Your task to perform on an android device: What's the weather? Image 0: 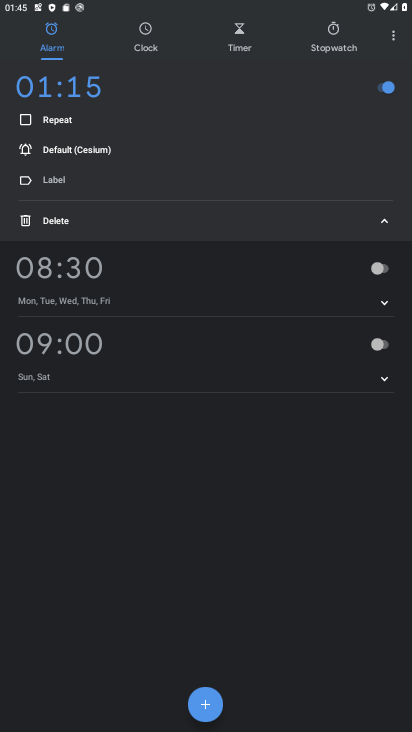
Step 0: press home button
Your task to perform on an android device: What's the weather? Image 1: 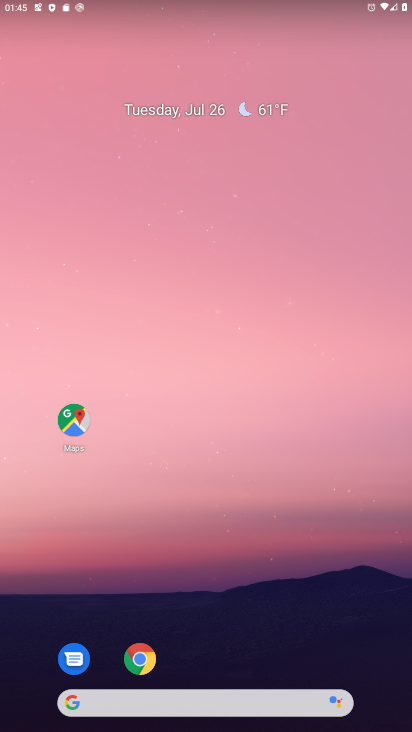
Step 1: drag from (204, 374) to (224, 66)
Your task to perform on an android device: What's the weather? Image 2: 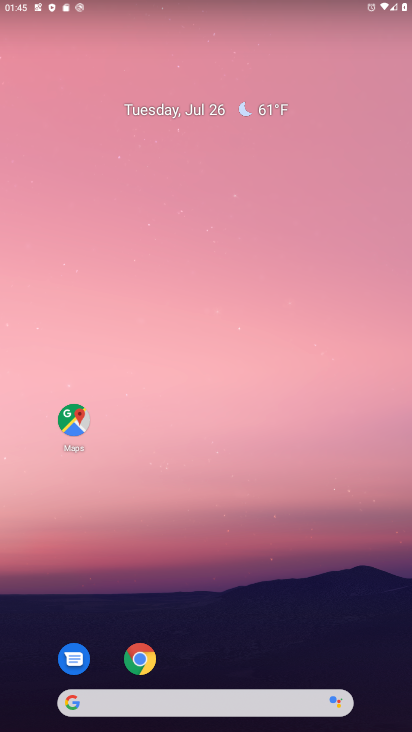
Step 2: drag from (259, 363) to (274, 7)
Your task to perform on an android device: What's the weather? Image 3: 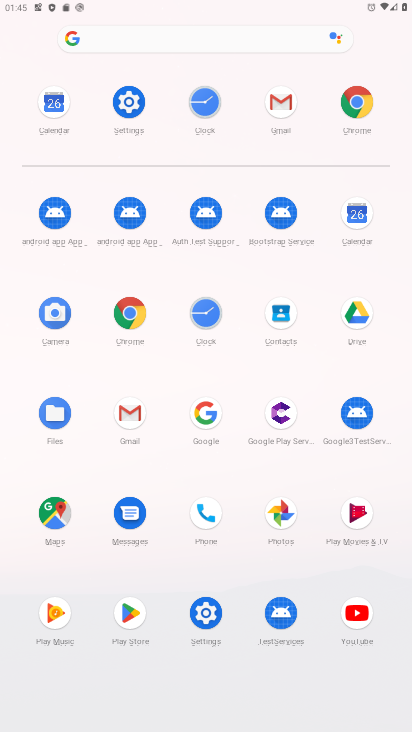
Step 3: press home button
Your task to perform on an android device: What's the weather? Image 4: 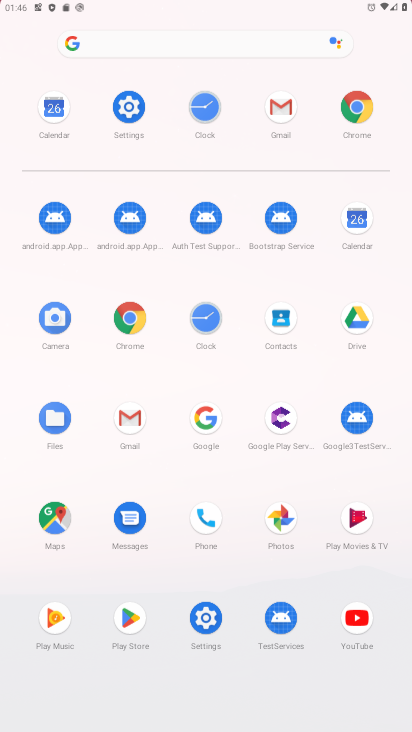
Step 4: press home button
Your task to perform on an android device: What's the weather? Image 5: 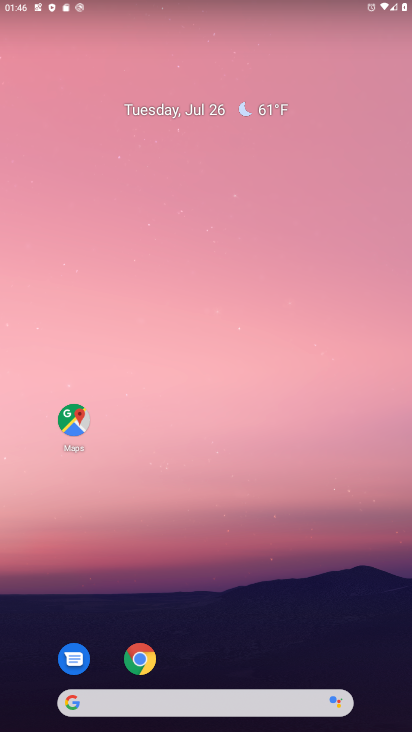
Step 5: click (278, 107)
Your task to perform on an android device: What's the weather? Image 6: 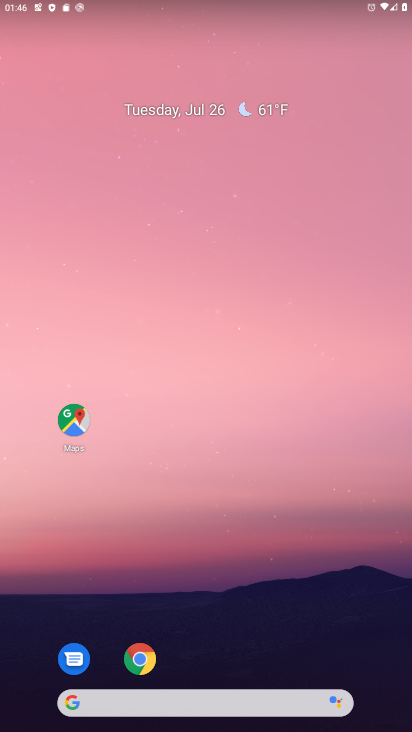
Step 6: click (272, 115)
Your task to perform on an android device: What's the weather? Image 7: 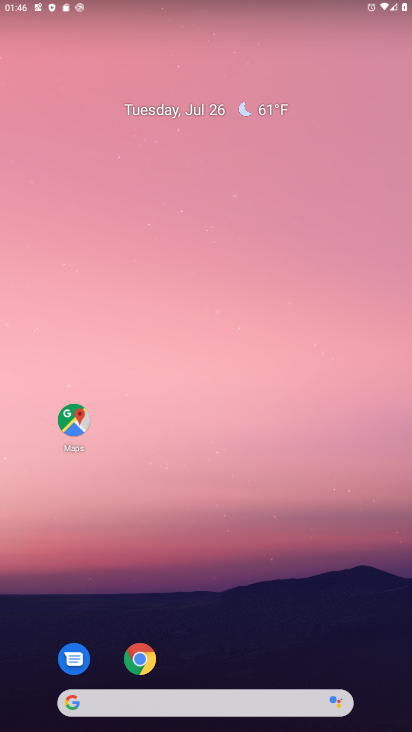
Step 7: drag from (238, 588) to (209, 4)
Your task to perform on an android device: What's the weather? Image 8: 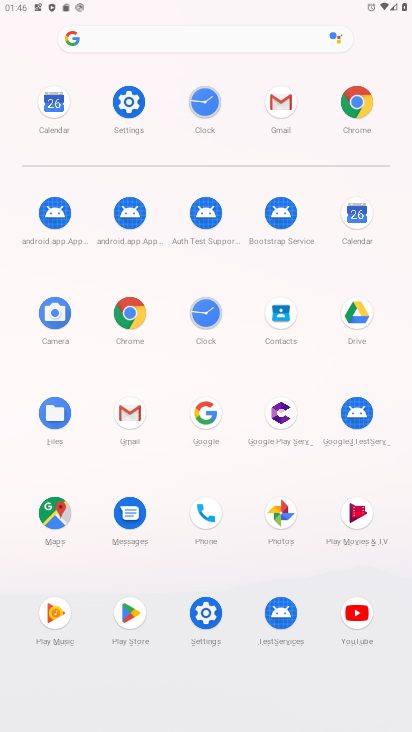
Step 8: click (358, 105)
Your task to perform on an android device: What's the weather? Image 9: 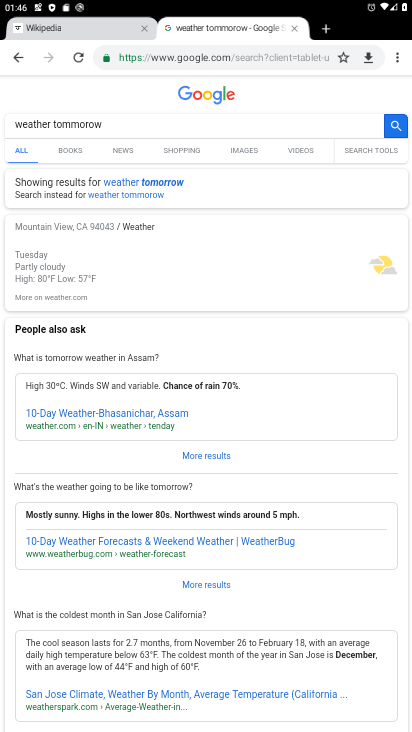
Step 9: click (250, 56)
Your task to perform on an android device: What's the weather? Image 10: 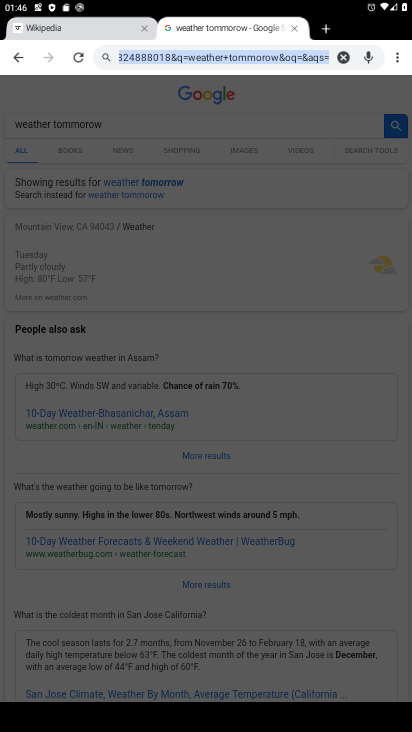
Step 10: type "weather"
Your task to perform on an android device: What's the weather? Image 11: 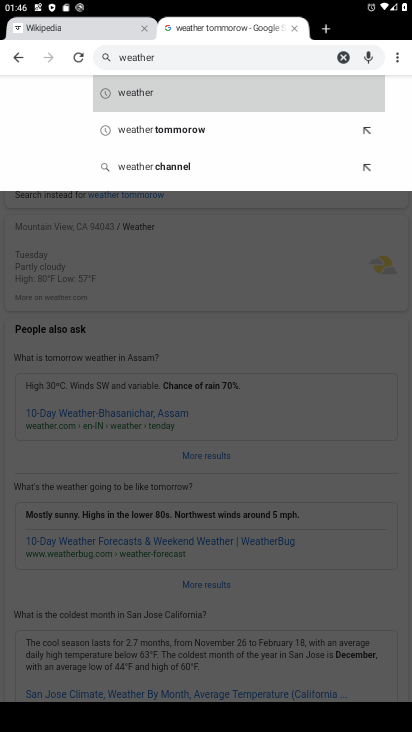
Step 11: click (127, 91)
Your task to perform on an android device: What's the weather? Image 12: 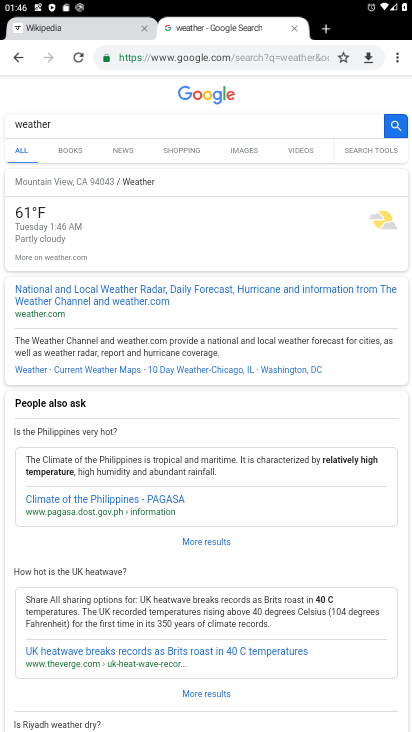
Step 12: task complete